Your task to perform on an android device: open a new tab in the chrome app Image 0: 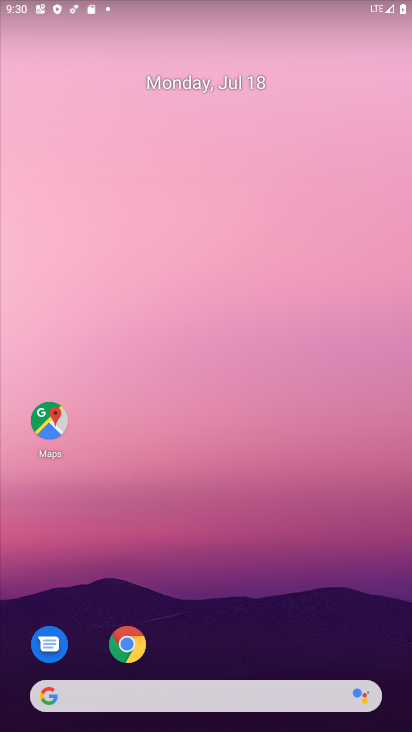
Step 0: click (144, 639)
Your task to perform on an android device: open a new tab in the chrome app Image 1: 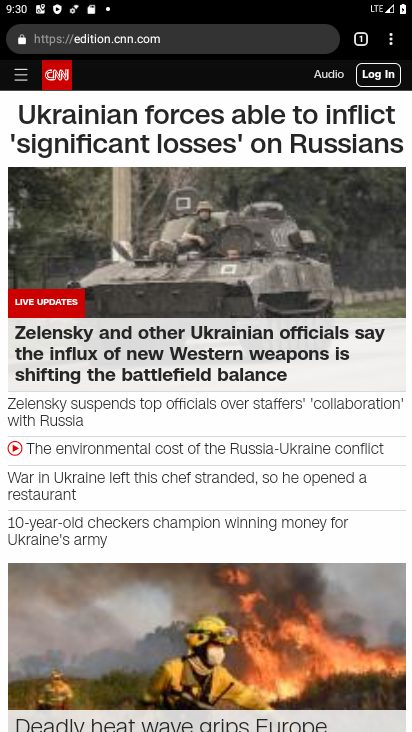
Step 1: click (369, 39)
Your task to perform on an android device: open a new tab in the chrome app Image 2: 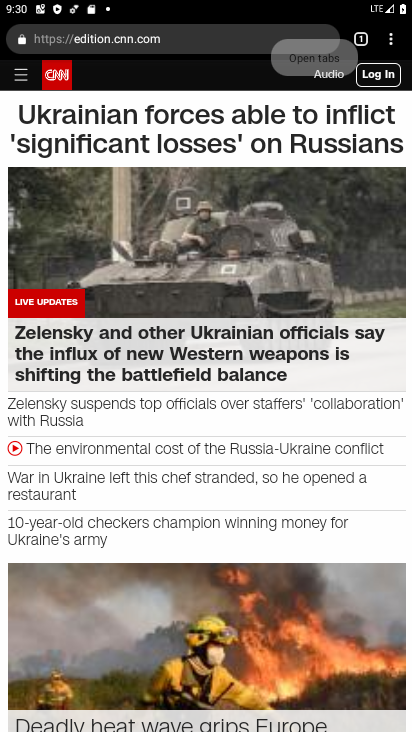
Step 2: click (358, 40)
Your task to perform on an android device: open a new tab in the chrome app Image 3: 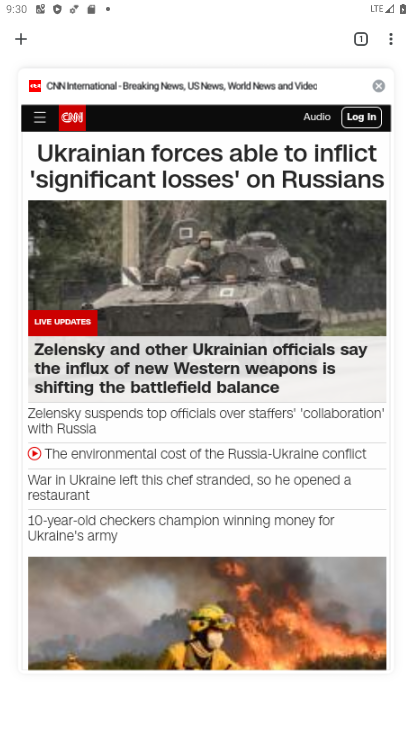
Step 3: click (24, 40)
Your task to perform on an android device: open a new tab in the chrome app Image 4: 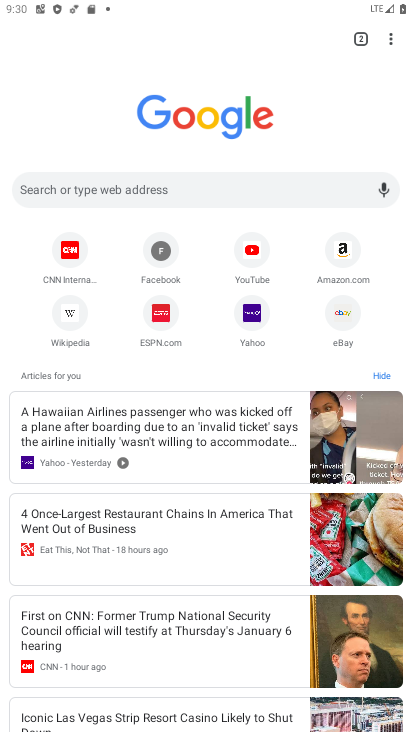
Step 4: task complete